Your task to perform on an android device: see tabs open on other devices in the chrome app Image 0: 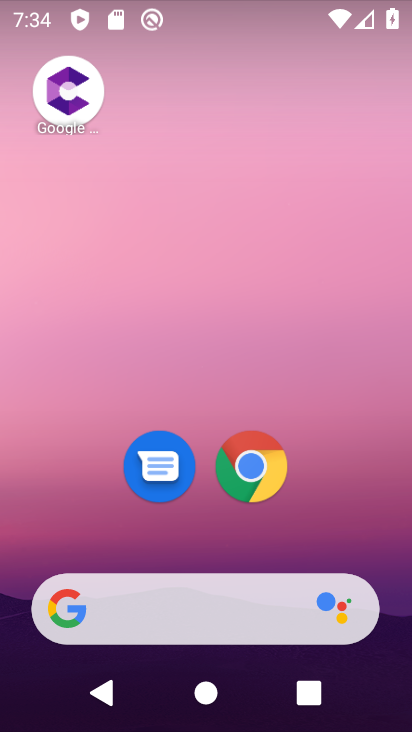
Step 0: drag from (198, 640) to (274, 37)
Your task to perform on an android device: see tabs open on other devices in the chrome app Image 1: 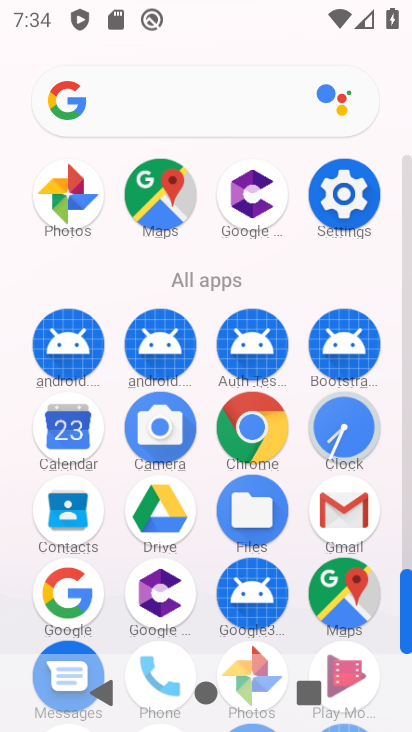
Step 1: click (244, 431)
Your task to perform on an android device: see tabs open on other devices in the chrome app Image 2: 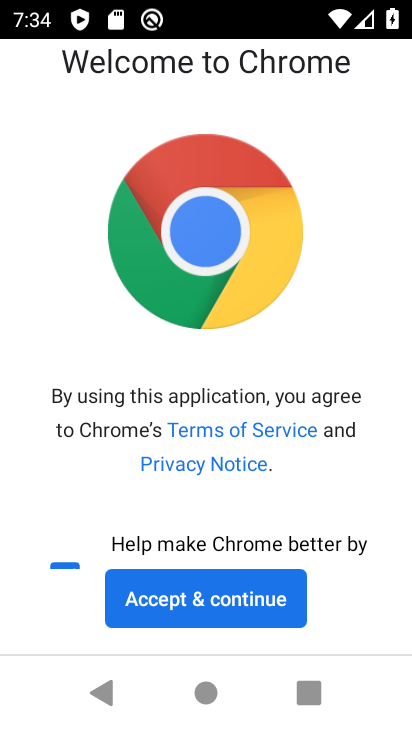
Step 2: click (237, 615)
Your task to perform on an android device: see tabs open on other devices in the chrome app Image 3: 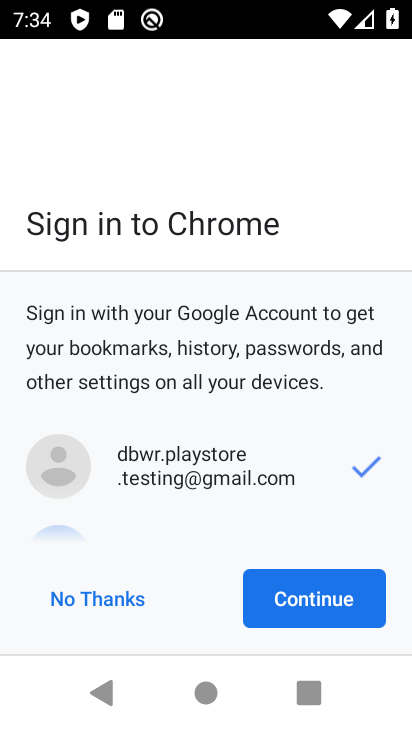
Step 3: click (319, 601)
Your task to perform on an android device: see tabs open on other devices in the chrome app Image 4: 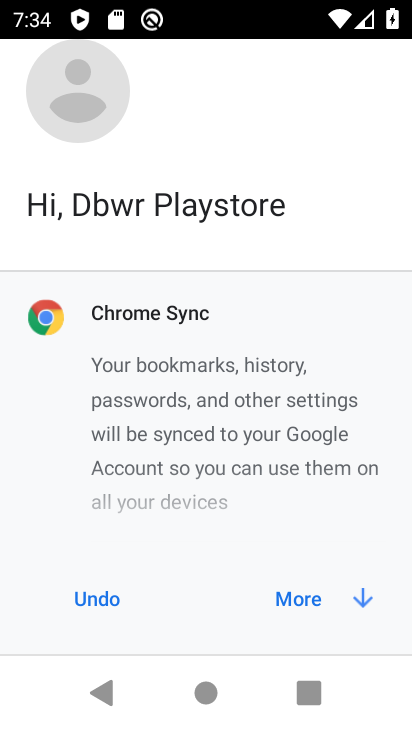
Step 4: click (319, 601)
Your task to perform on an android device: see tabs open on other devices in the chrome app Image 5: 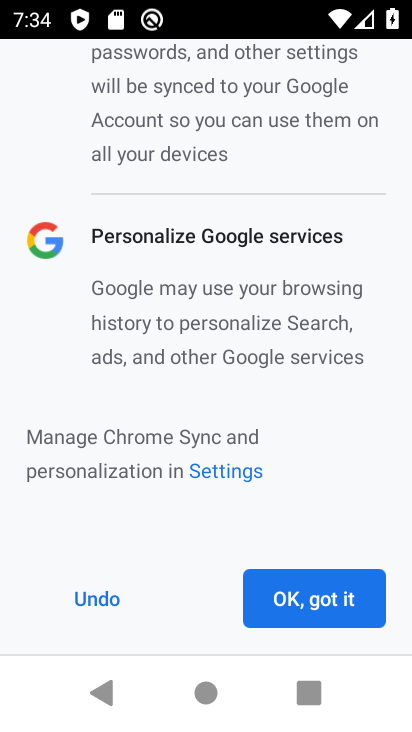
Step 5: click (318, 600)
Your task to perform on an android device: see tabs open on other devices in the chrome app Image 6: 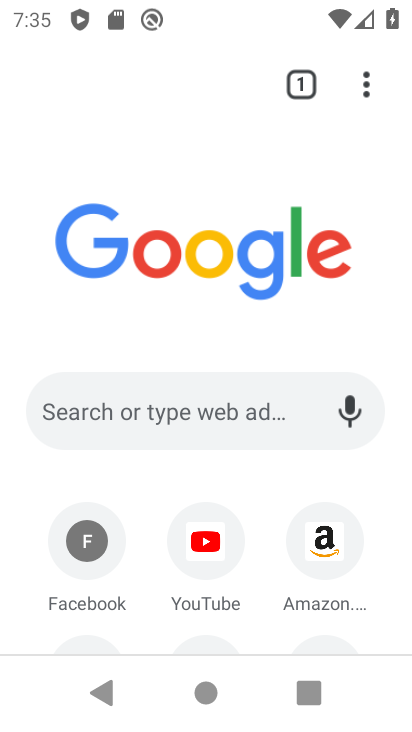
Step 6: task complete